Your task to perform on an android device: find which apps use the phone's location Image 0: 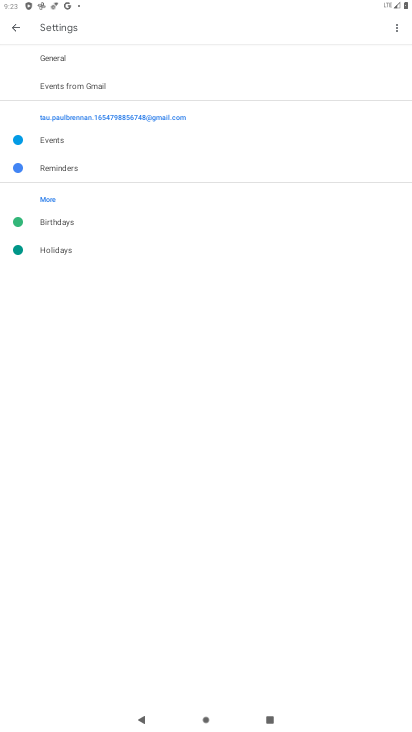
Step 0: press home button
Your task to perform on an android device: find which apps use the phone's location Image 1: 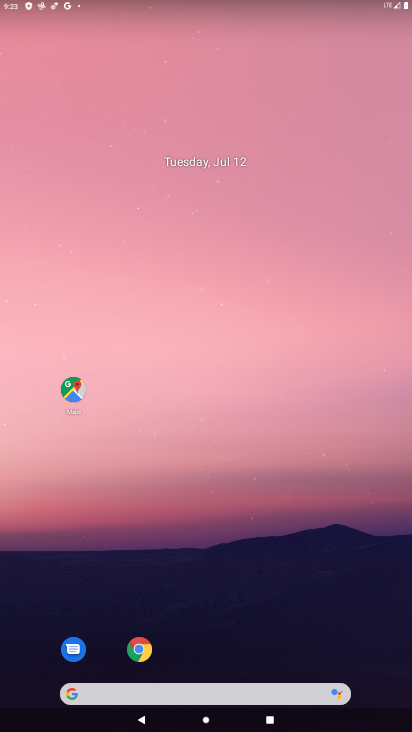
Step 1: drag from (322, 615) to (202, 9)
Your task to perform on an android device: find which apps use the phone's location Image 2: 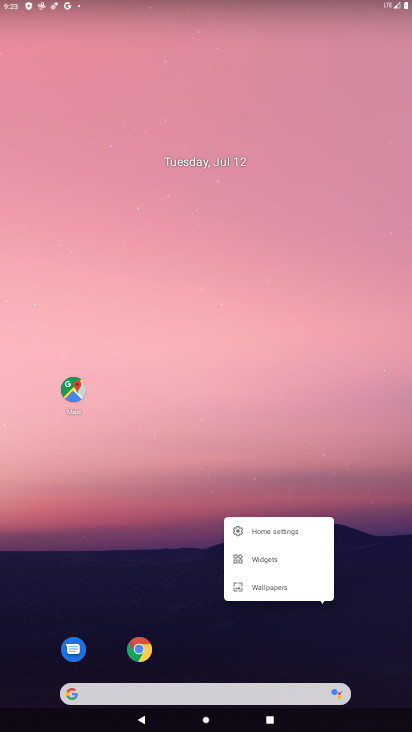
Step 2: click (172, 284)
Your task to perform on an android device: find which apps use the phone's location Image 3: 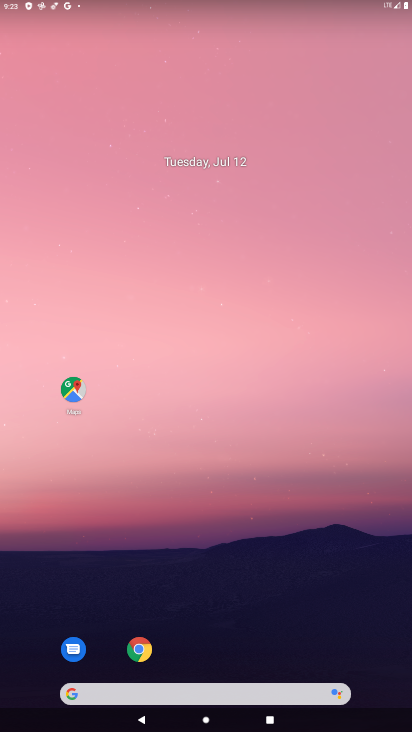
Step 3: drag from (275, 622) to (283, 307)
Your task to perform on an android device: find which apps use the phone's location Image 4: 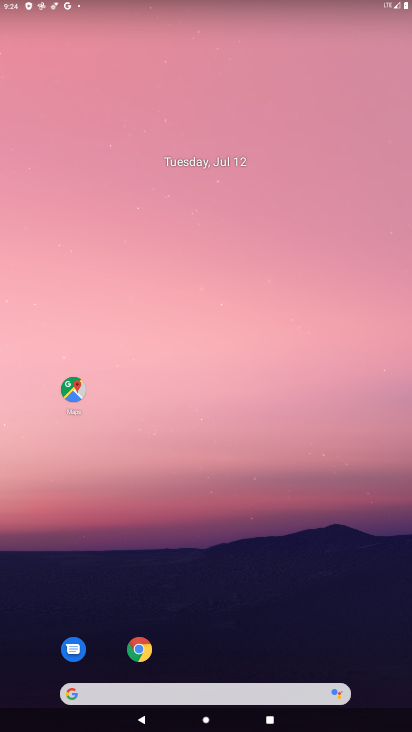
Step 4: drag from (259, 586) to (210, 197)
Your task to perform on an android device: find which apps use the phone's location Image 5: 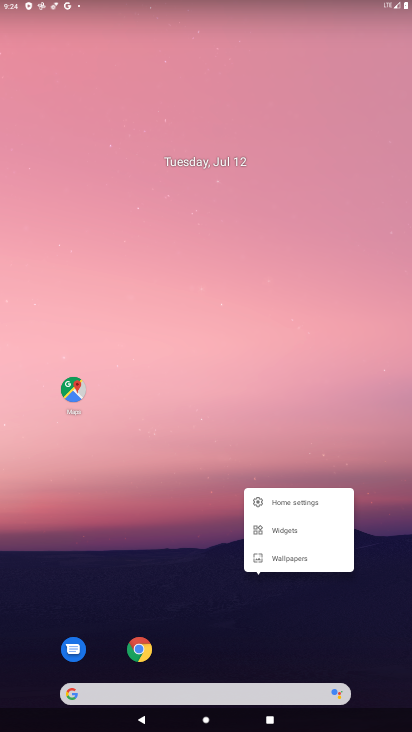
Step 5: click (138, 490)
Your task to perform on an android device: find which apps use the phone's location Image 6: 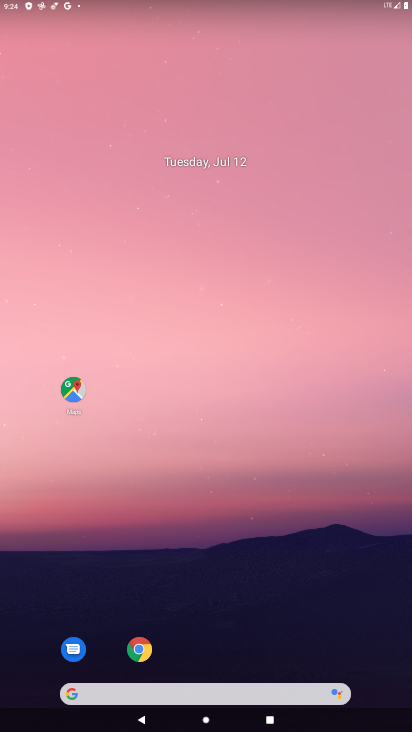
Step 6: drag from (228, 625) to (246, 118)
Your task to perform on an android device: find which apps use the phone's location Image 7: 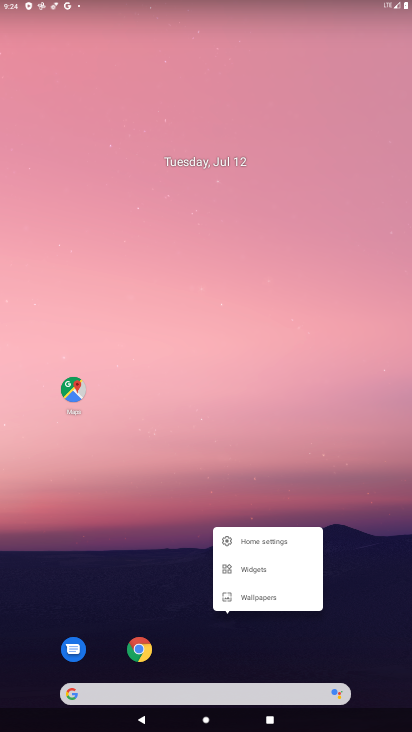
Step 7: click (251, 441)
Your task to perform on an android device: find which apps use the phone's location Image 8: 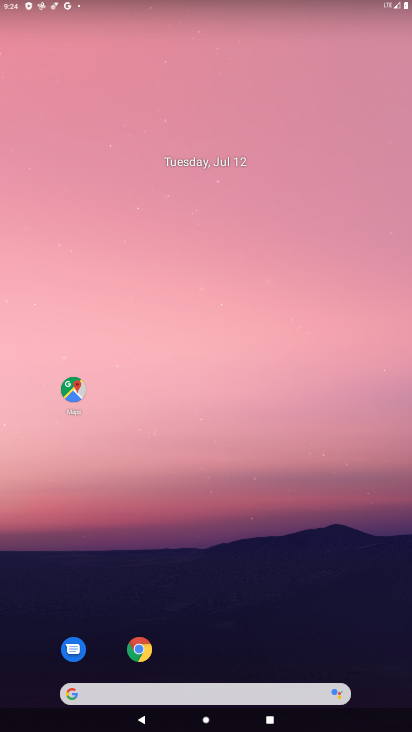
Step 8: drag from (269, 665) to (292, 298)
Your task to perform on an android device: find which apps use the phone's location Image 9: 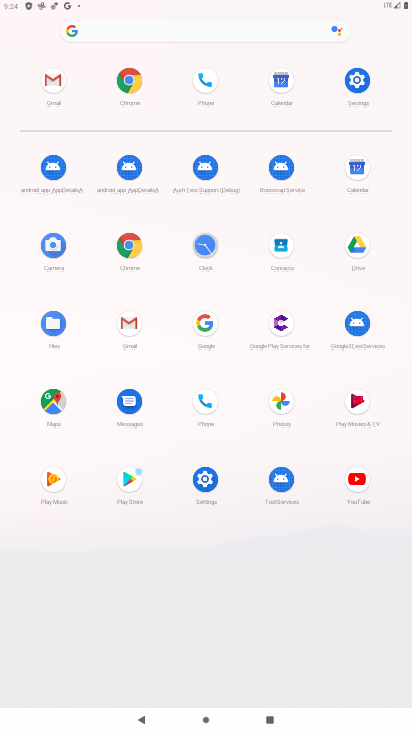
Step 9: click (371, 100)
Your task to perform on an android device: find which apps use the phone's location Image 10: 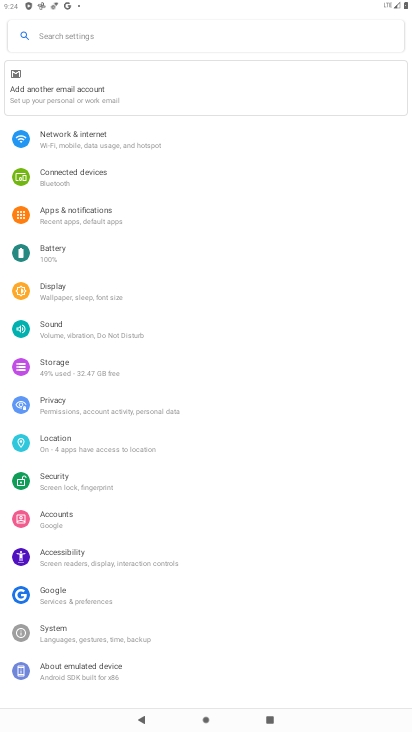
Step 10: click (80, 450)
Your task to perform on an android device: find which apps use the phone's location Image 11: 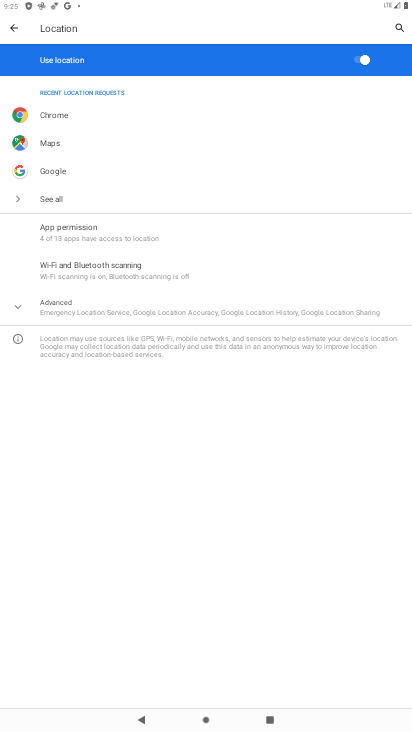
Step 11: task complete